Your task to perform on an android device: open a bookmark in the chrome app Image 0: 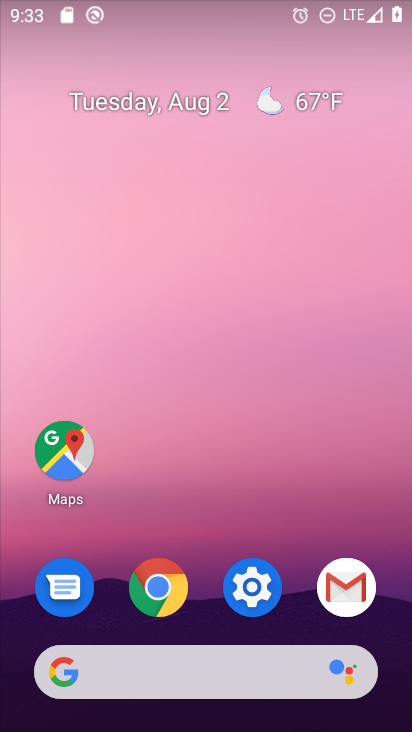
Step 0: press home button
Your task to perform on an android device: open a bookmark in the chrome app Image 1: 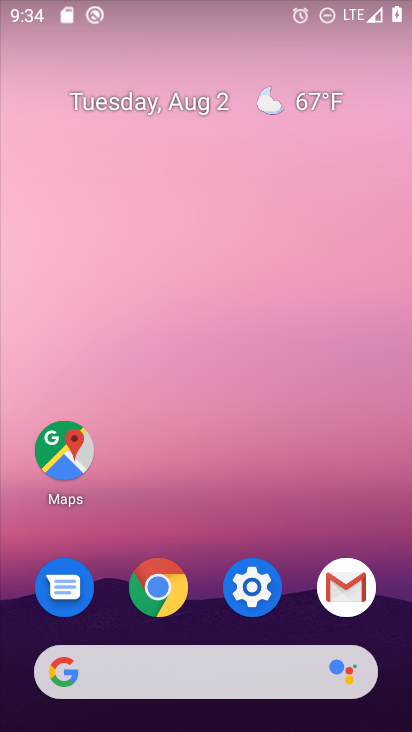
Step 1: click (177, 575)
Your task to perform on an android device: open a bookmark in the chrome app Image 2: 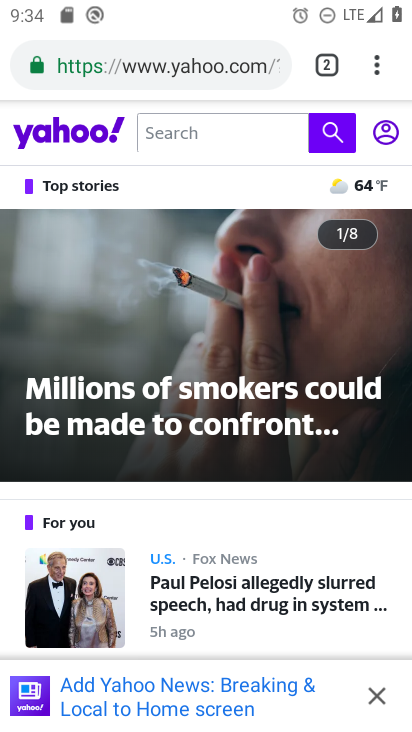
Step 2: click (366, 52)
Your task to perform on an android device: open a bookmark in the chrome app Image 3: 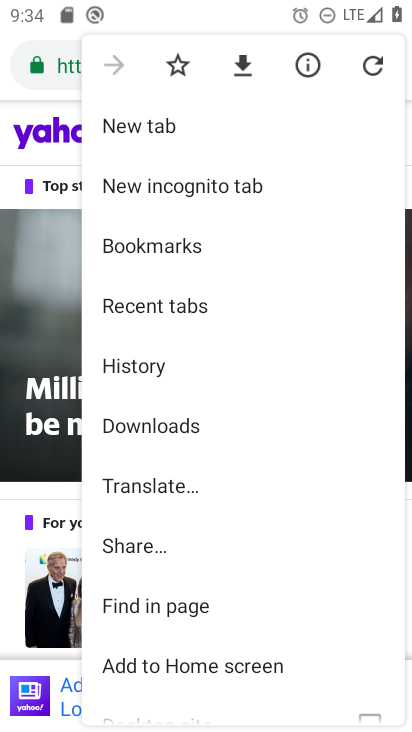
Step 3: click (163, 250)
Your task to perform on an android device: open a bookmark in the chrome app Image 4: 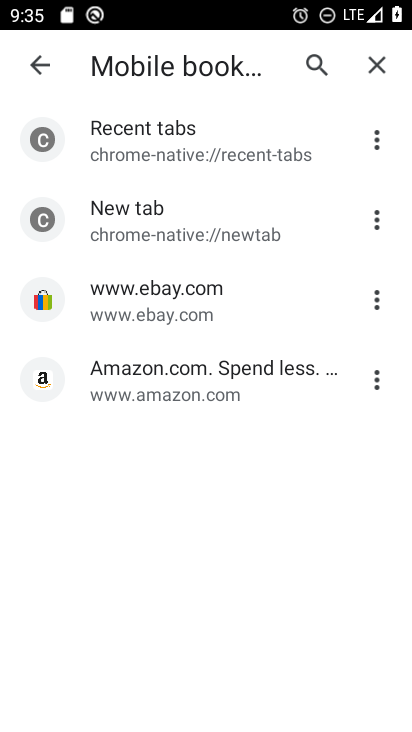
Step 4: task complete